Your task to perform on an android device: set the timer Image 0: 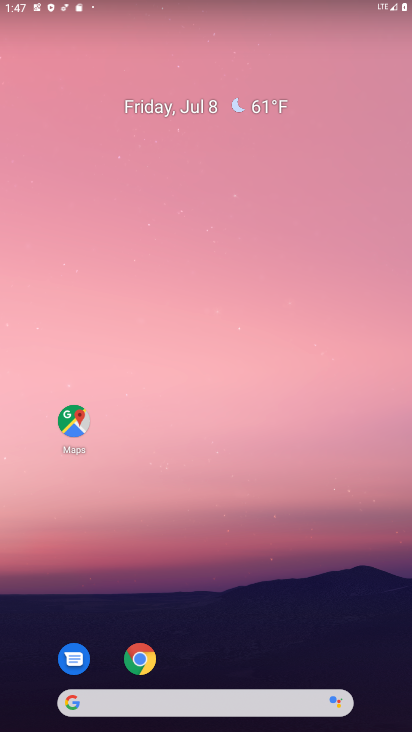
Step 0: drag from (217, 692) to (177, 19)
Your task to perform on an android device: set the timer Image 1: 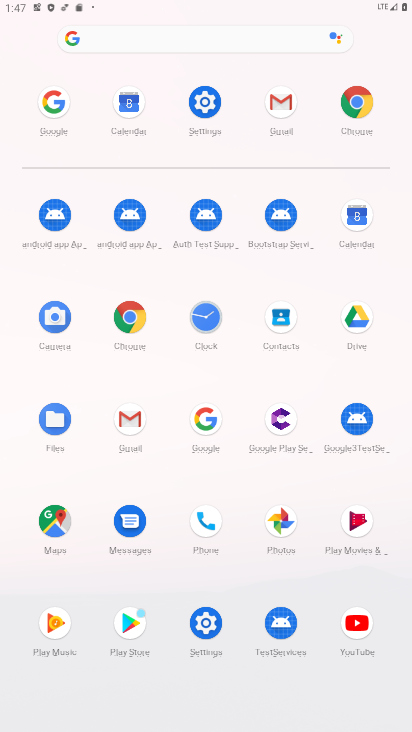
Step 1: click (193, 316)
Your task to perform on an android device: set the timer Image 2: 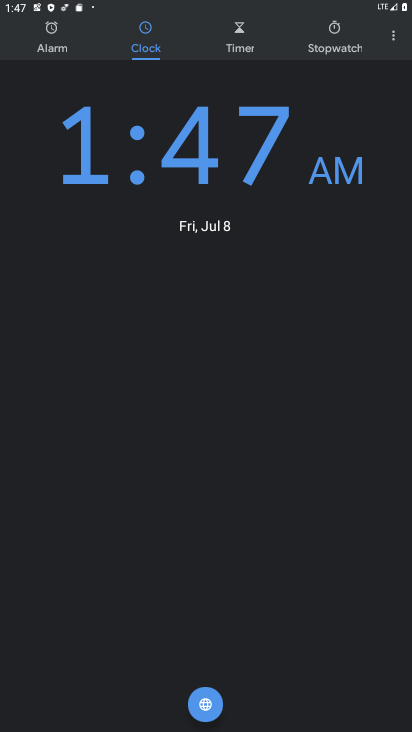
Step 2: click (244, 46)
Your task to perform on an android device: set the timer Image 3: 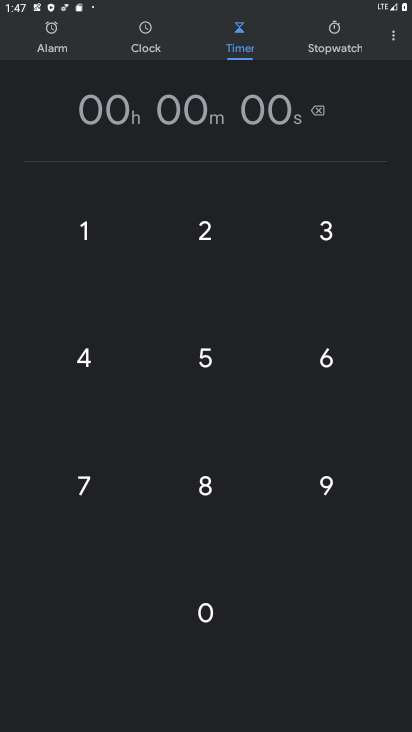
Step 3: click (198, 235)
Your task to perform on an android device: set the timer Image 4: 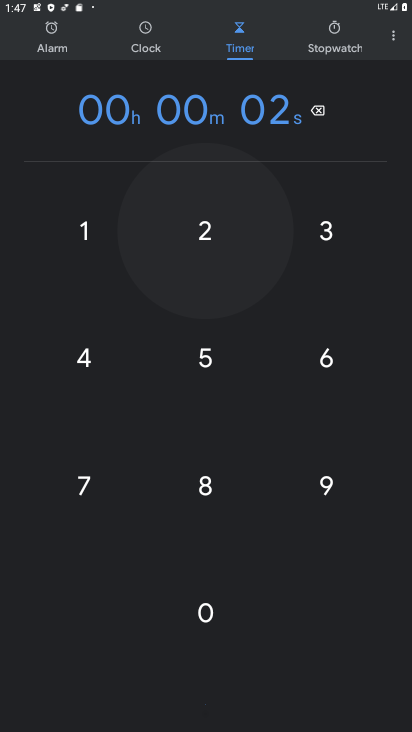
Step 4: click (213, 316)
Your task to perform on an android device: set the timer Image 5: 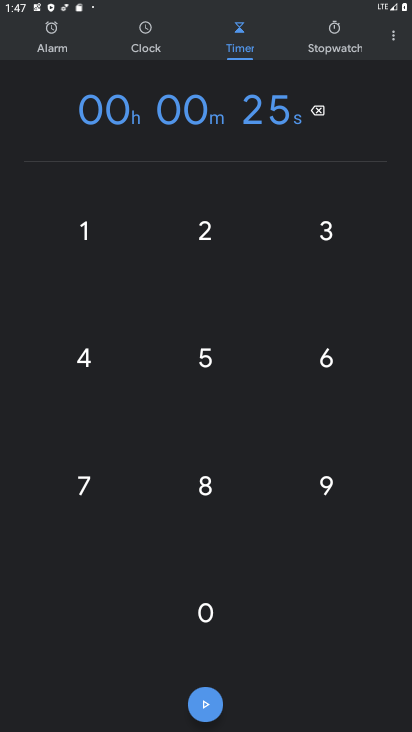
Step 5: click (186, 703)
Your task to perform on an android device: set the timer Image 6: 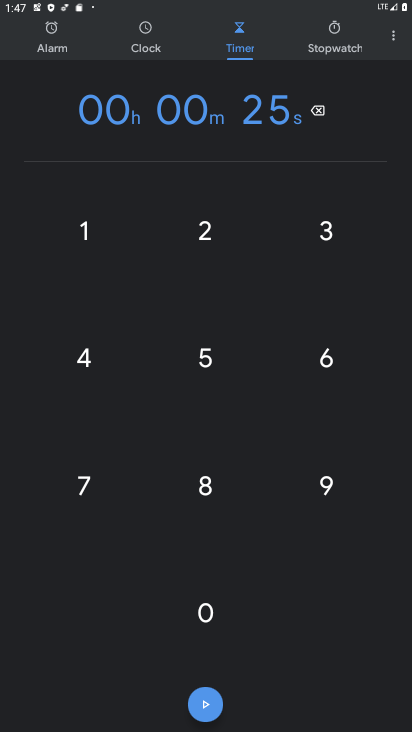
Step 6: click (222, 693)
Your task to perform on an android device: set the timer Image 7: 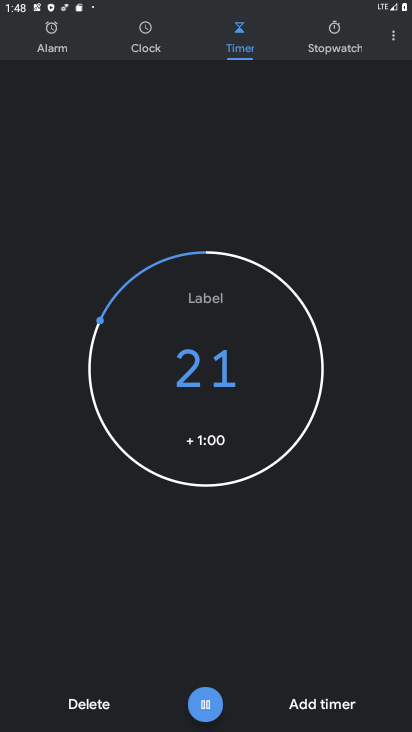
Step 7: task complete